Your task to perform on an android device: Open Maps and search for coffee Image 0: 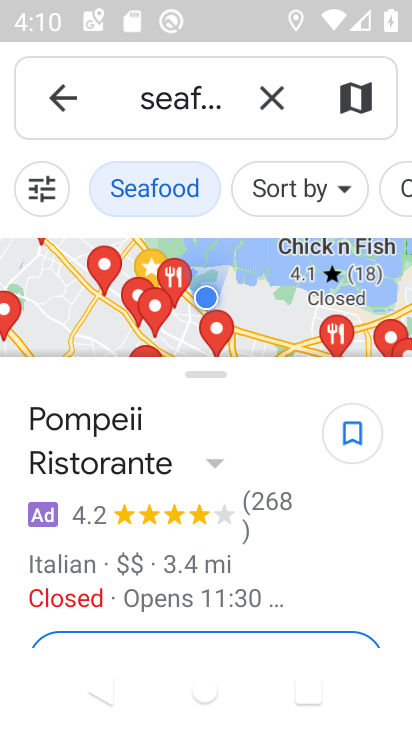
Step 0: press home button
Your task to perform on an android device: Open Maps and search for coffee Image 1: 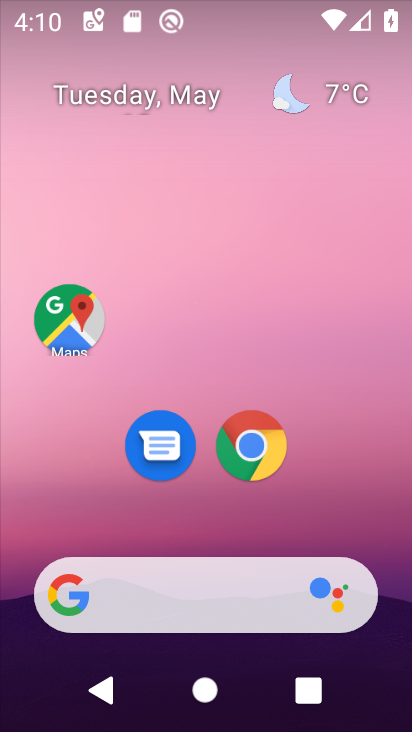
Step 1: click (55, 321)
Your task to perform on an android device: Open Maps and search for coffee Image 2: 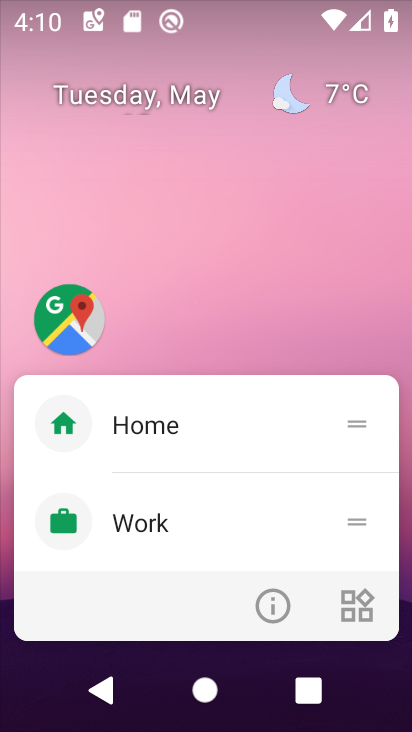
Step 2: click (66, 315)
Your task to perform on an android device: Open Maps and search for coffee Image 3: 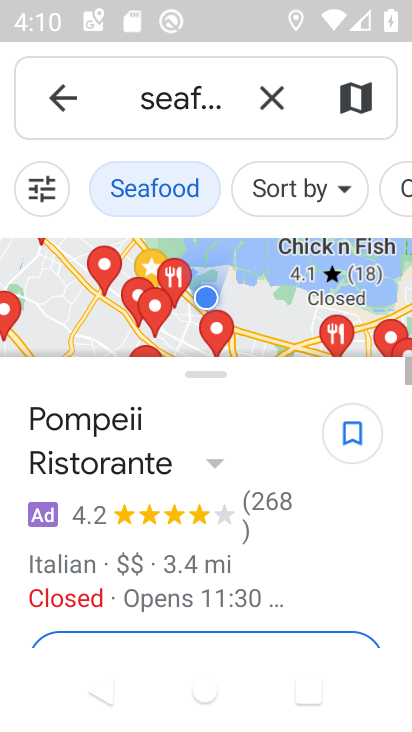
Step 3: click (274, 95)
Your task to perform on an android device: Open Maps and search for coffee Image 4: 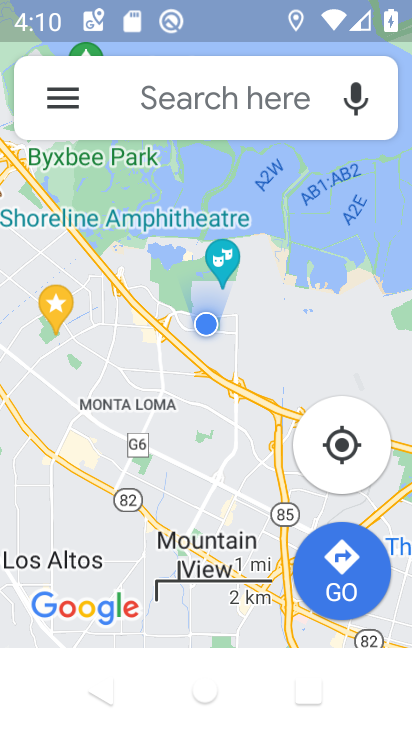
Step 4: click (226, 101)
Your task to perform on an android device: Open Maps and search for coffee Image 5: 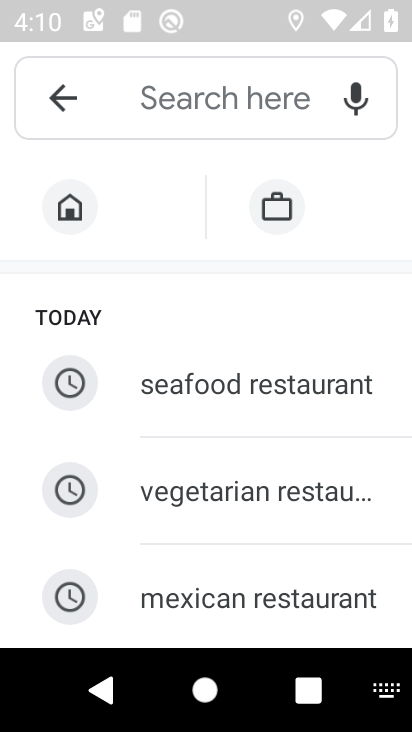
Step 5: type "coffee"
Your task to perform on an android device: Open Maps and search for coffee Image 6: 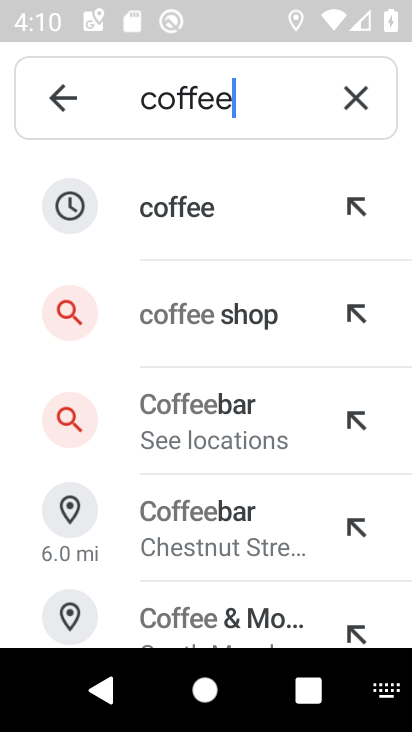
Step 6: click (252, 235)
Your task to perform on an android device: Open Maps and search for coffee Image 7: 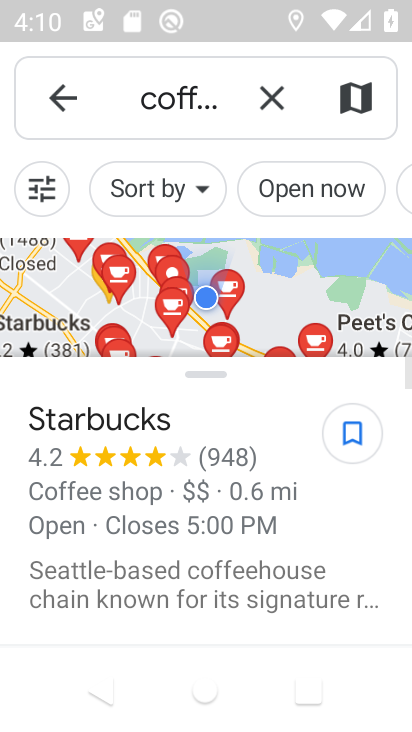
Step 7: task complete